Your task to perform on an android device: Go to internet settings Image 0: 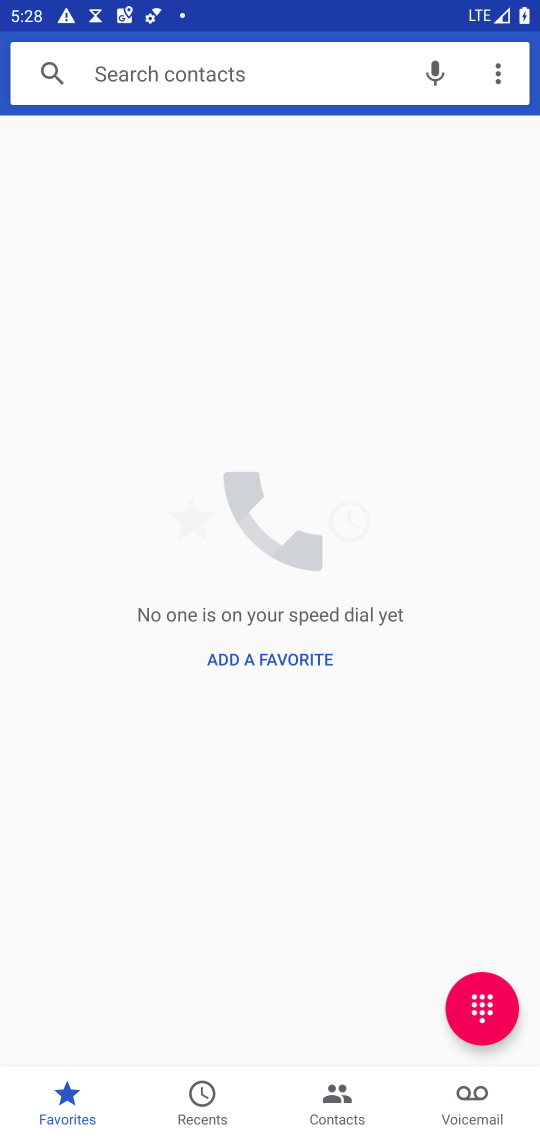
Step 0: press home button
Your task to perform on an android device: Go to internet settings Image 1: 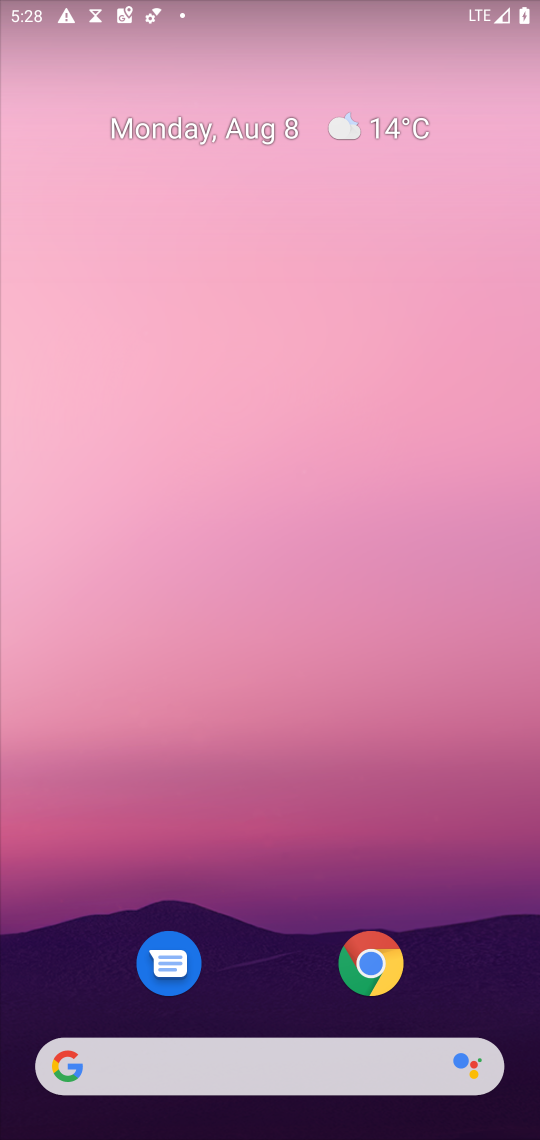
Step 1: drag from (268, 902) to (166, 66)
Your task to perform on an android device: Go to internet settings Image 2: 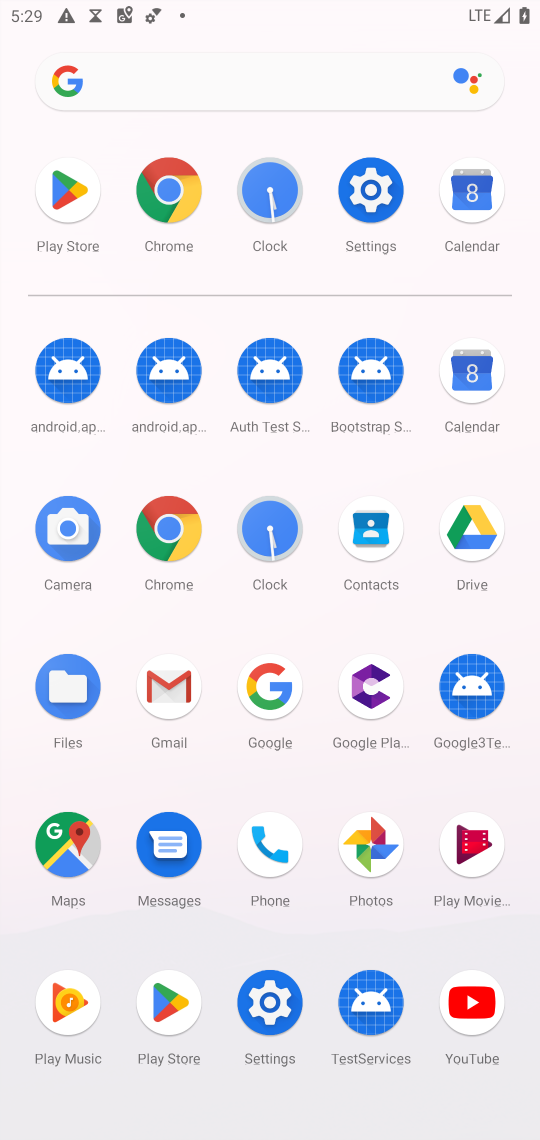
Step 2: click (270, 1001)
Your task to perform on an android device: Go to internet settings Image 3: 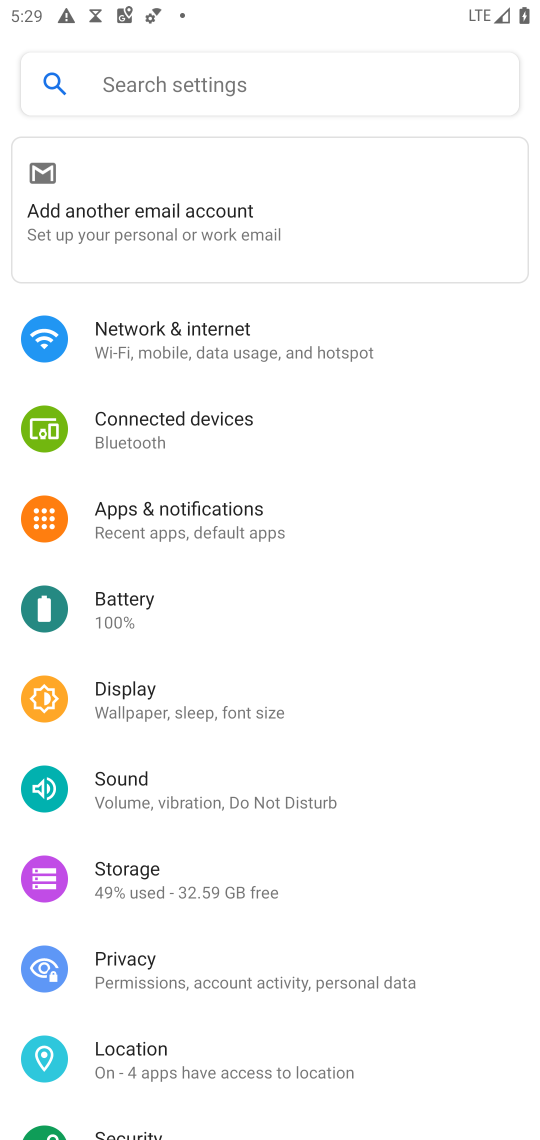
Step 3: click (166, 350)
Your task to perform on an android device: Go to internet settings Image 4: 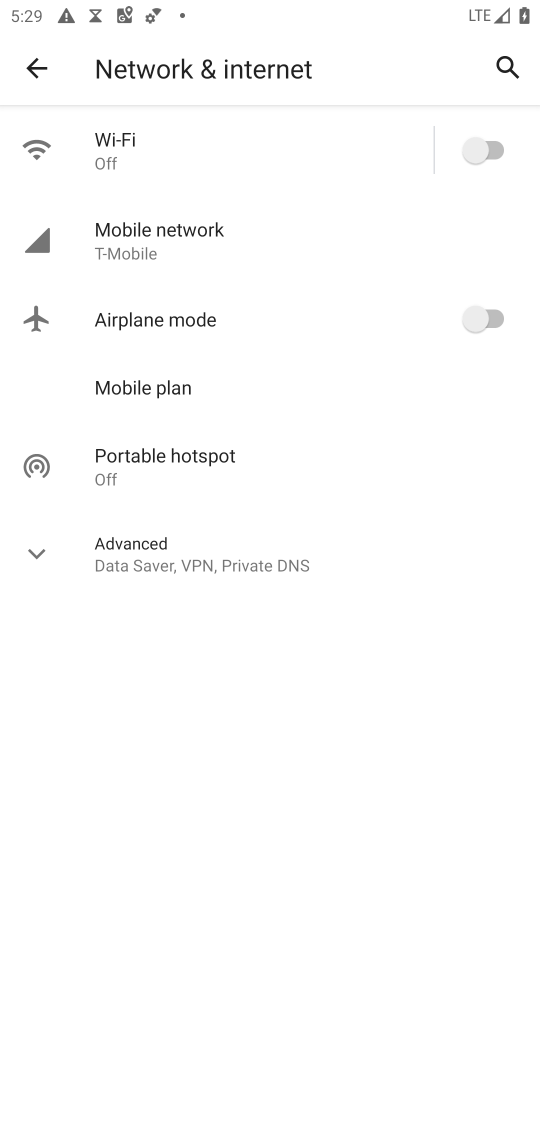
Step 4: click (235, 244)
Your task to perform on an android device: Go to internet settings Image 5: 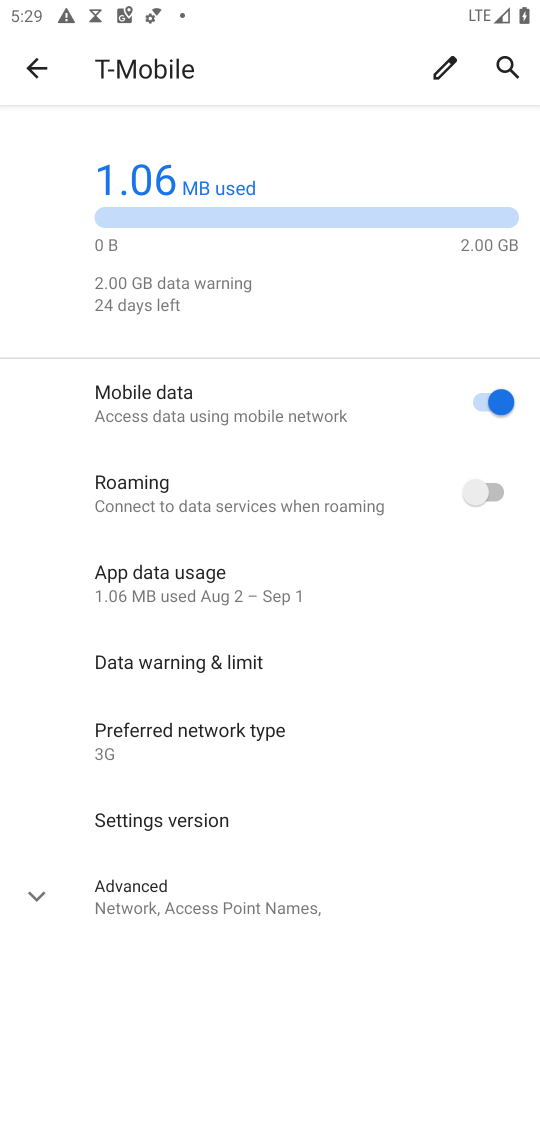
Step 5: task complete